Your task to perform on an android device: Search for Italian restaurants on Maps Image 0: 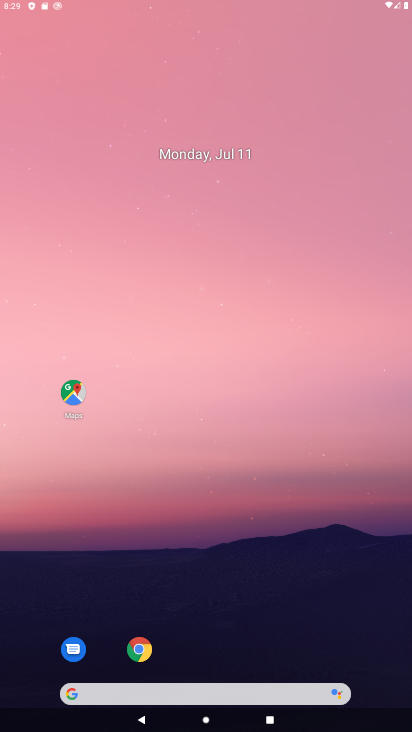
Step 0: drag from (255, 413) to (317, 75)
Your task to perform on an android device: Search for Italian restaurants on Maps Image 1: 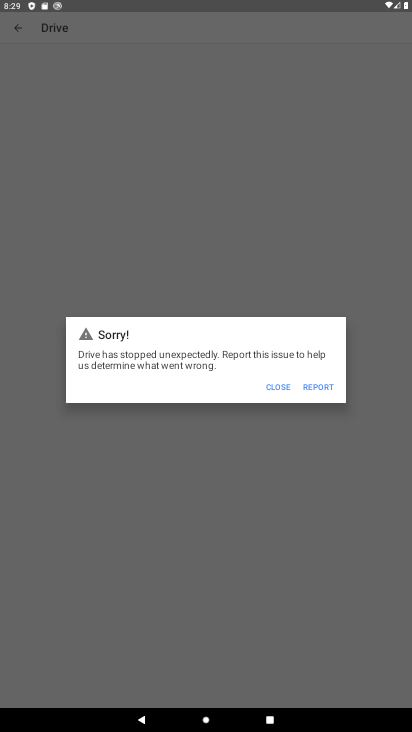
Step 1: press home button
Your task to perform on an android device: Search for Italian restaurants on Maps Image 2: 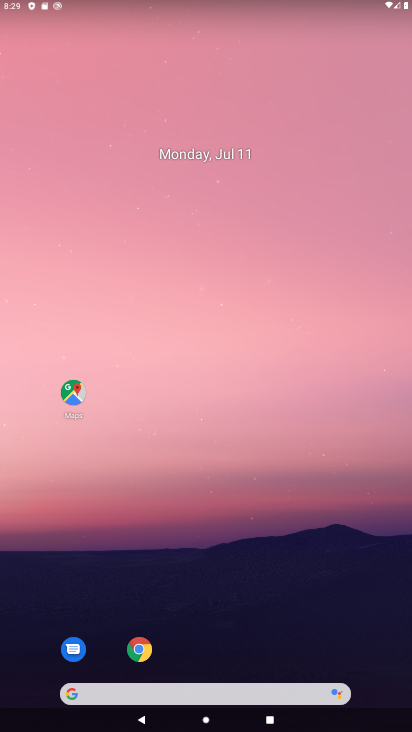
Step 2: drag from (198, 665) to (250, 135)
Your task to perform on an android device: Search for Italian restaurants on Maps Image 3: 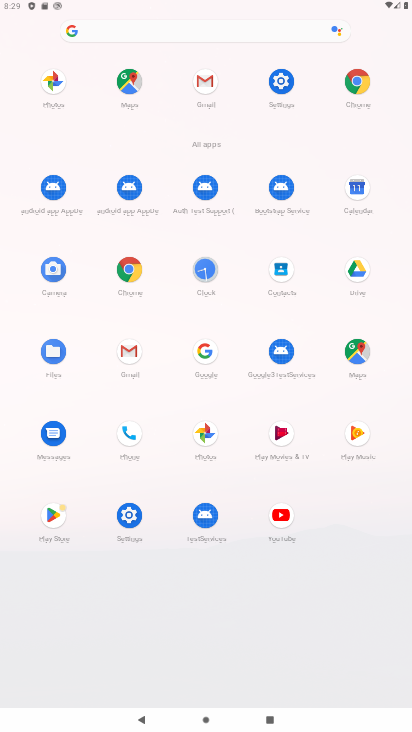
Step 3: click (363, 360)
Your task to perform on an android device: Search for Italian restaurants on Maps Image 4: 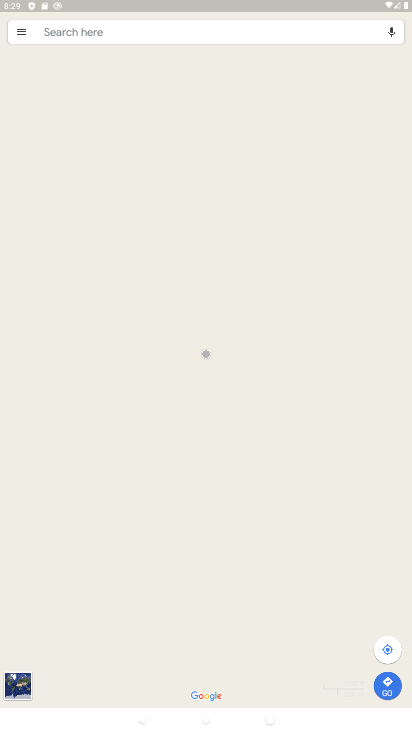
Step 4: click (214, 35)
Your task to perform on an android device: Search for Italian restaurants on Maps Image 5: 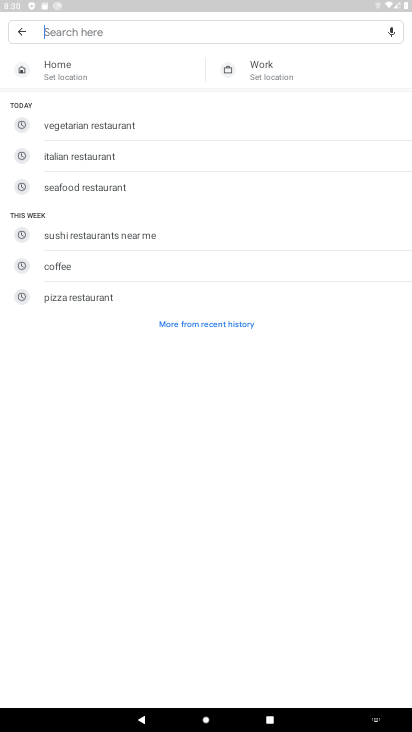
Step 5: type "Italian restaurants"
Your task to perform on an android device: Search for Italian restaurants on Maps Image 6: 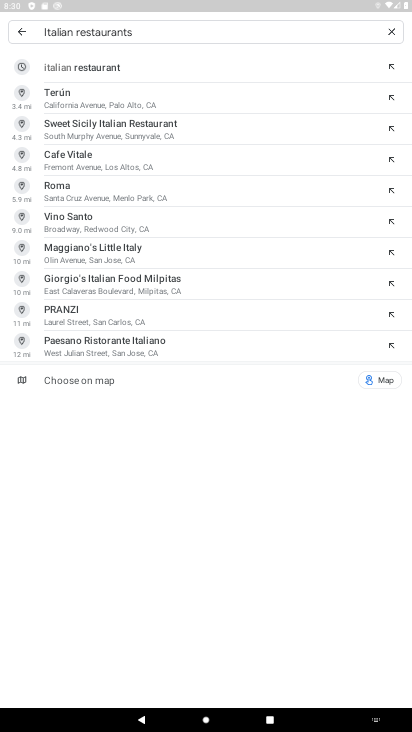
Step 6: click (169, 72)
Your task to perform on an android device: Search for Italian restaurants on Maps Image 7: 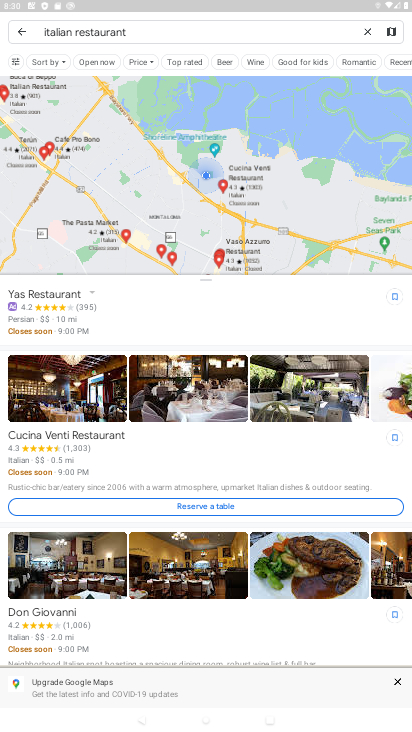
Step 7: task complete